Your task to perform on an android device: Check the news Image 0: 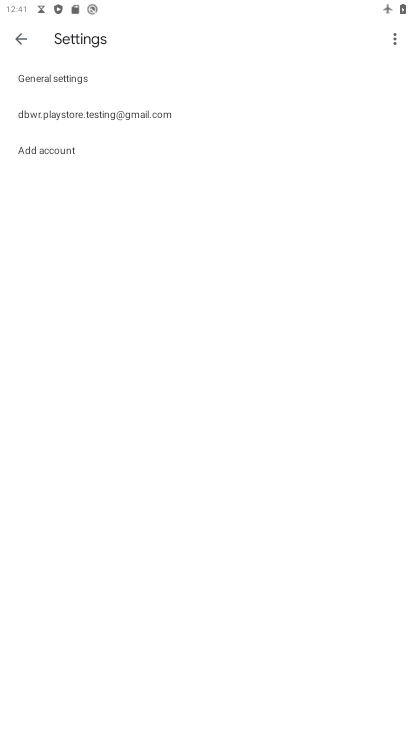
Step 0: press home button
Your task to perform on an android device: Check the news Image 1: 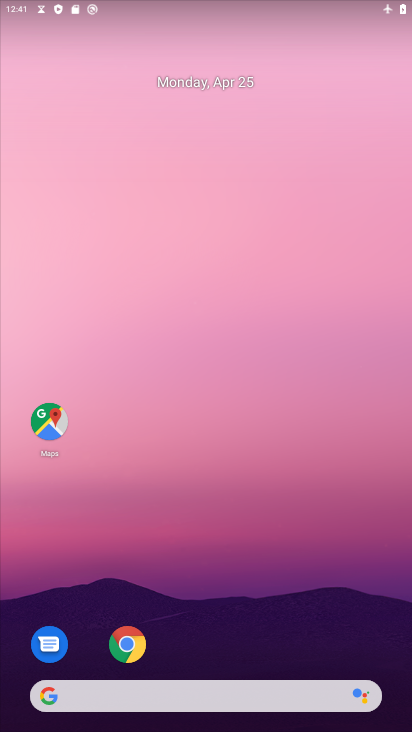
Step 1: task complete